Your task to perform on an android device: Is it going to rain tomorrow? Image 0: 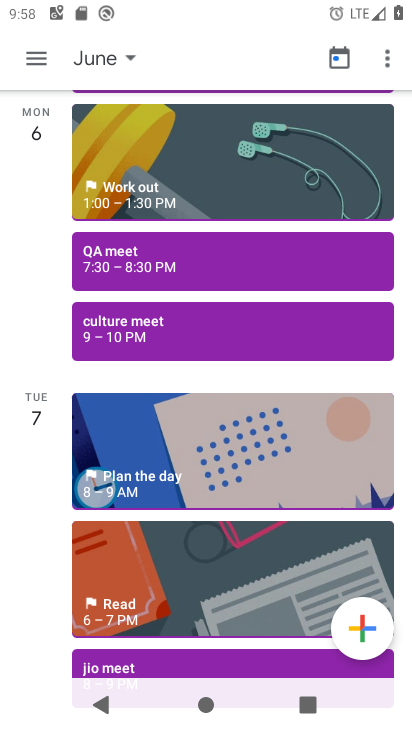
Step 0: press home button
Your task to perform on an android device: Is it going to rain tomorrow? Image 1: 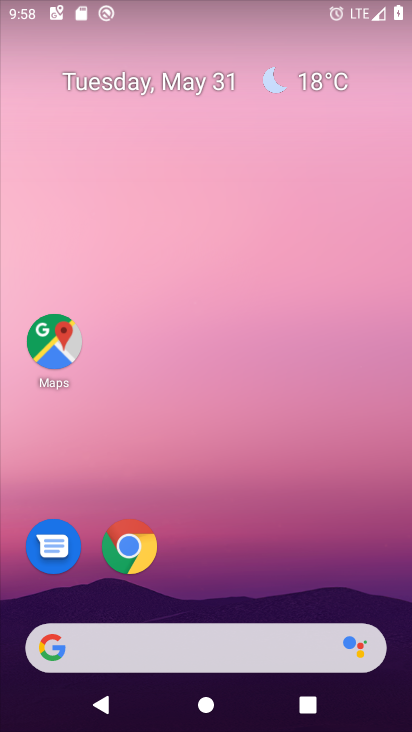
Step 1: click (305, 62)
Your task to perform on an android device: Is it going to rain tomorrow? Image 2: 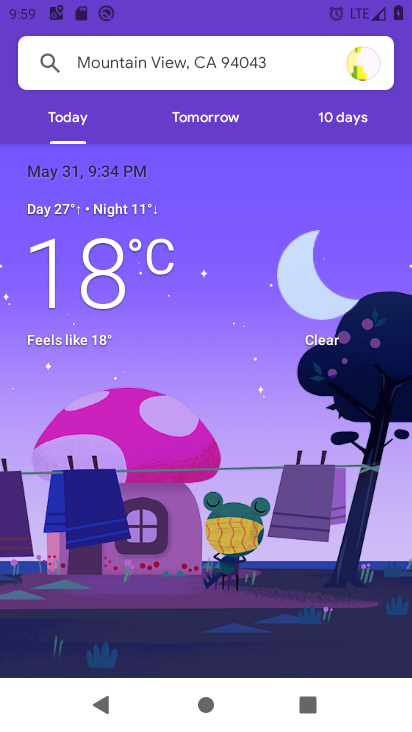
Step 2: click (208, 134)
Your task to perform on an android device: Is it going to rain tomorrow? Image 3: 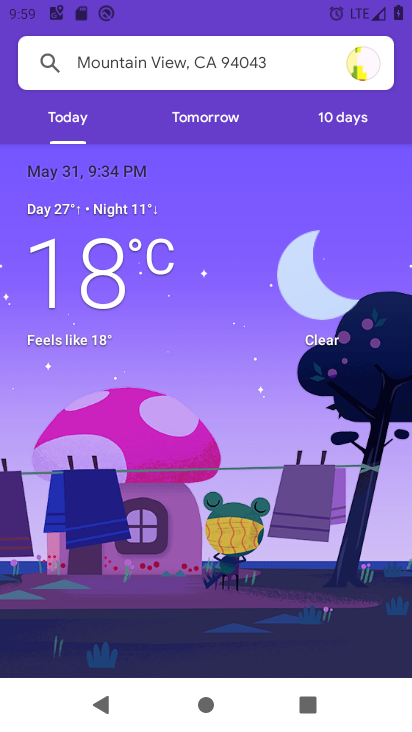
Step 3: click (183, 483)
Your task to perform on an android device: Is it going to rain tomorrow? Image 4: 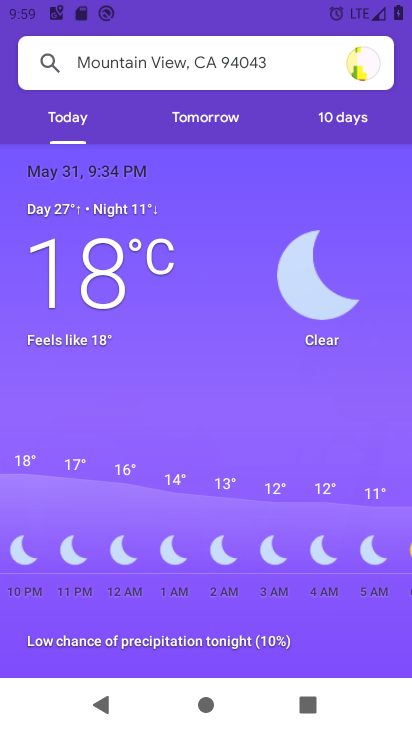
Step 4: click (212, 117)
Your task to perform on an android device: Is it going to rain tomorrow? Image 5: 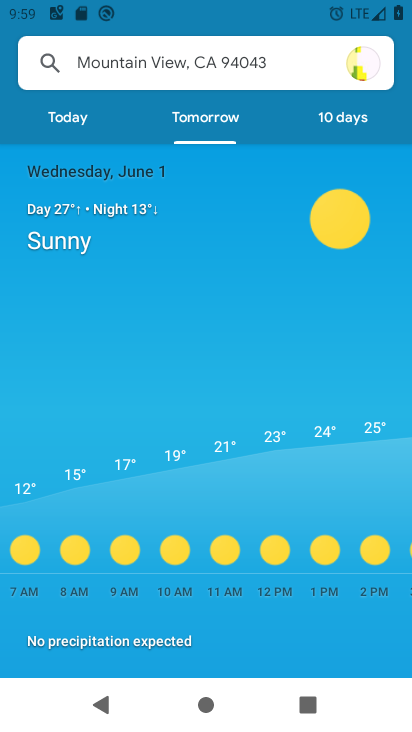
Step 5: task complete